Your task to perform on an android device: turn vacation reply on in the gmail app Image 0: 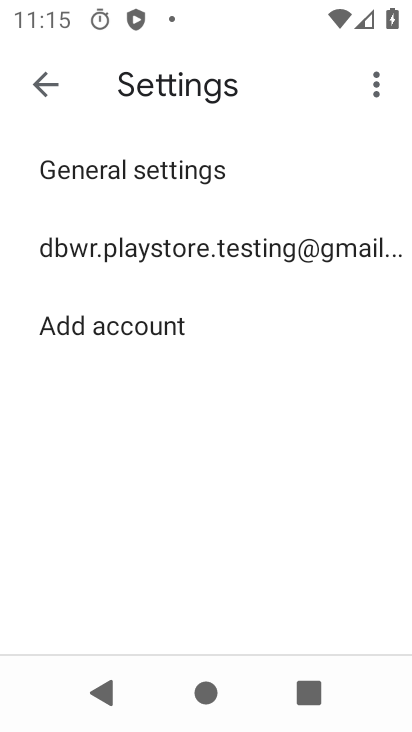
Step 0: click (362, 256)
Your task to perform on an android device: turn vacation reply on in the gmail app Image 1: 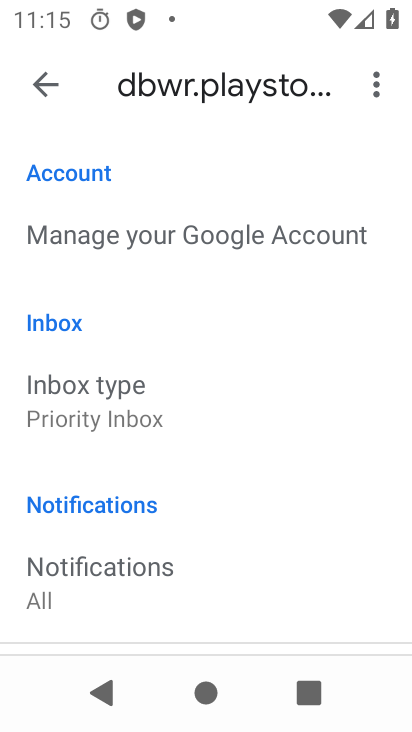
Step 1: drag from (270, 617) to (190, 43)
Your task to perform on an android device: turn vacation reply on in the gmail app Image 2: 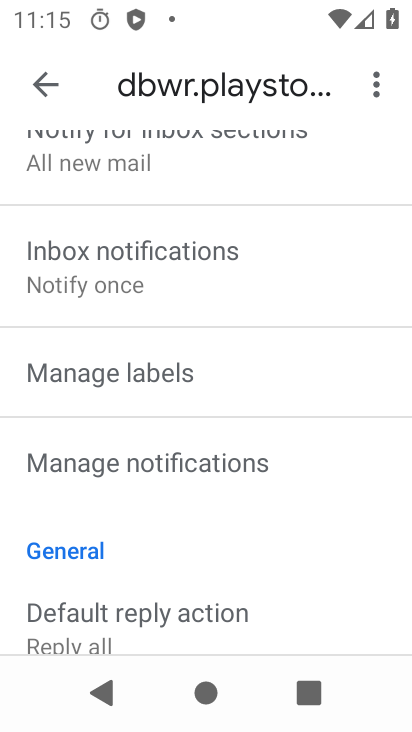
Step 2: drag from (298, 604) to (247, 40)
Your task to perform on an android device: turn vacation reply on in the gmail app Image 3: 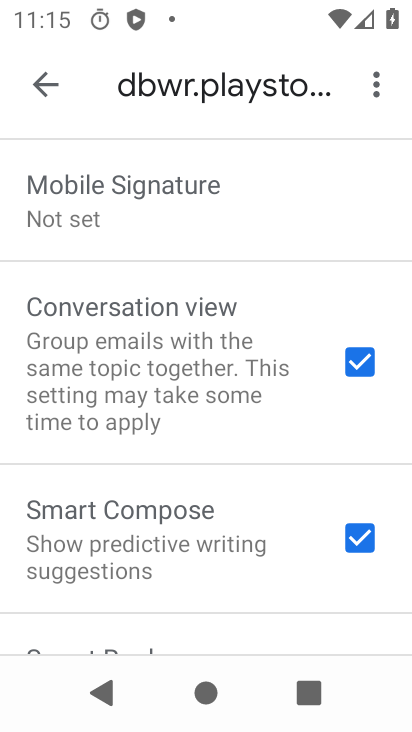
Step 3: drag from (252, 640) to (151, 70)
Your task to perform on an android device: turn vacation reply on in the gmail app Image 4: 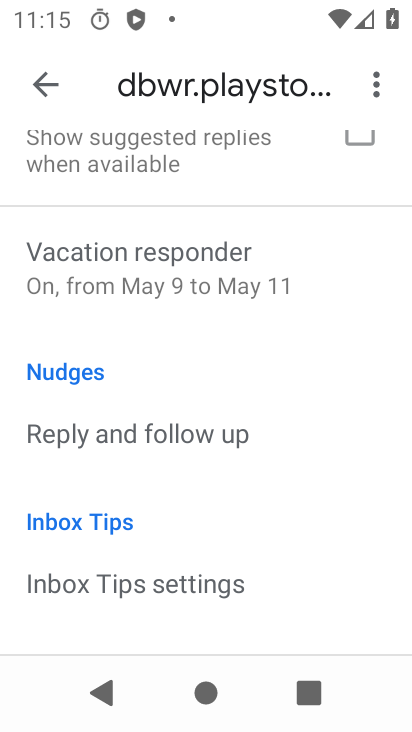
Step 4: click (211, 280)
Your task to perform on an android device: turn vacation reply on in the gmail app Image 5: 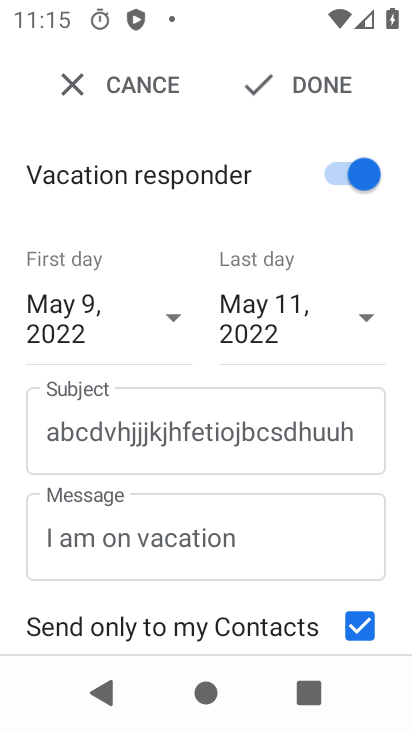
Step 5: click (325, 88)
Your task to perform on an android device: turn vacation reply on in the gmail app Image 6: 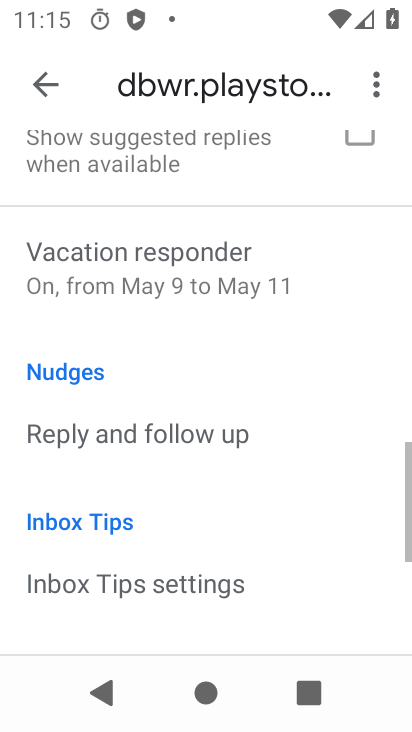
Step 6: task complete